Your task to perform on an android device: change notifications settings Image 0: 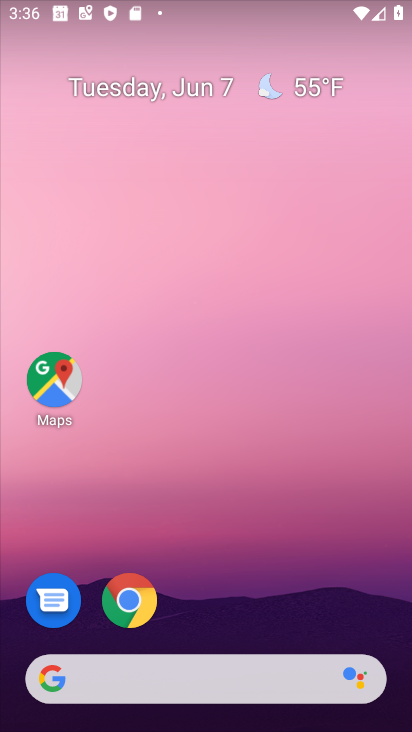
Step 0: drag from (186, 627) to (245, 1)
Your task to perform on an android device: change notifications settings Image 1: 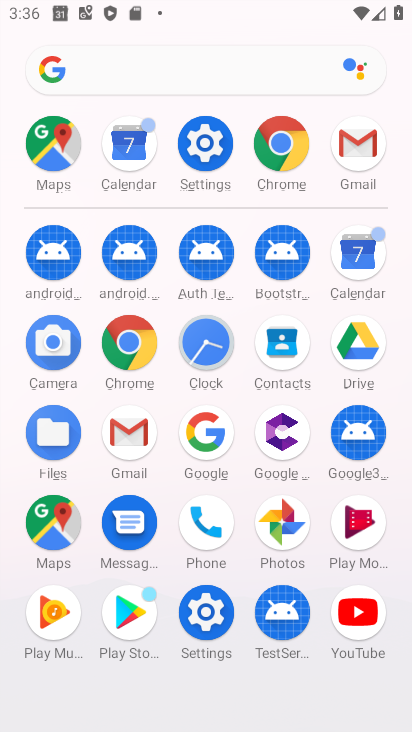
Step 1: click (211, 135)
Your task to perform on an android device: change notifications settings Image 2: 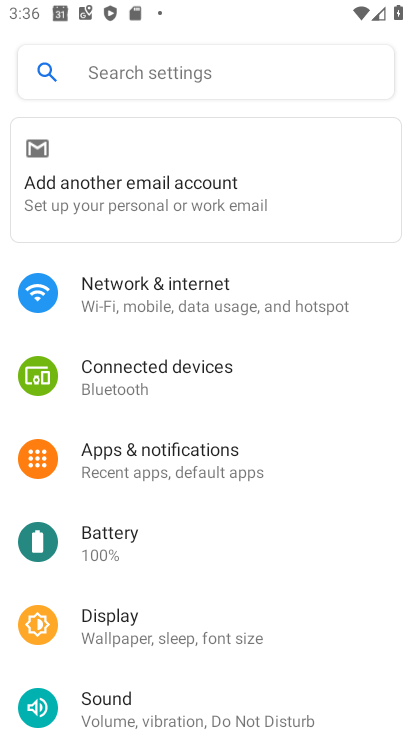
Step 2: click (161, 456)
Your task to perform on an android device: change notifications settings Image 3: 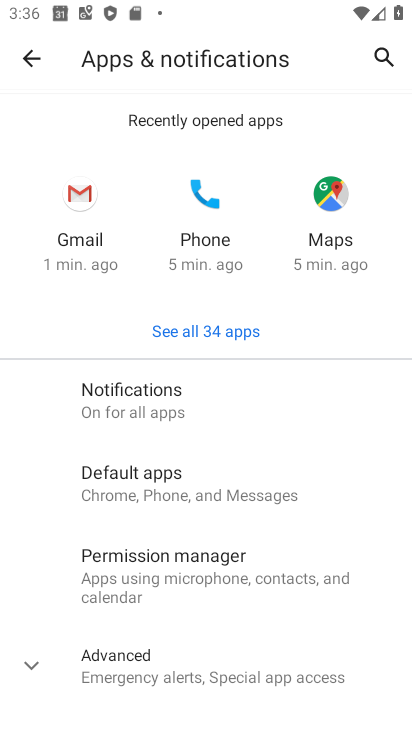
Step 3: click (146, 416)
Your task to perform on an android device: change notifications settings Image 4: 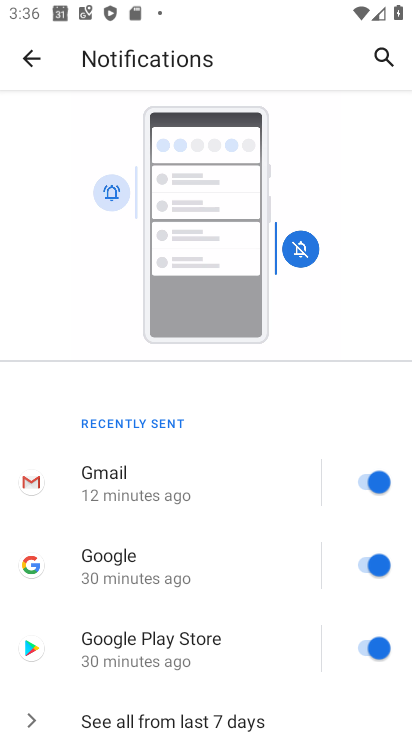
Step 4: drag from (162, 685) to (175, 245)
Your task to perform on an android device: change notifications settings Image 5: 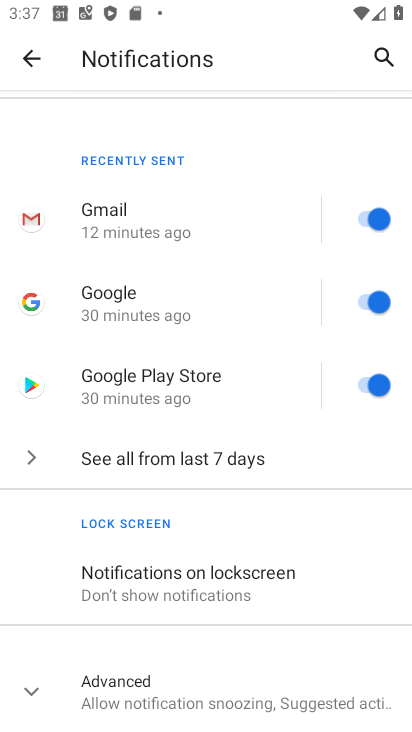
Step 5: click (185, 586)
Your task to perform on an android device: change notifications settings Image 6: 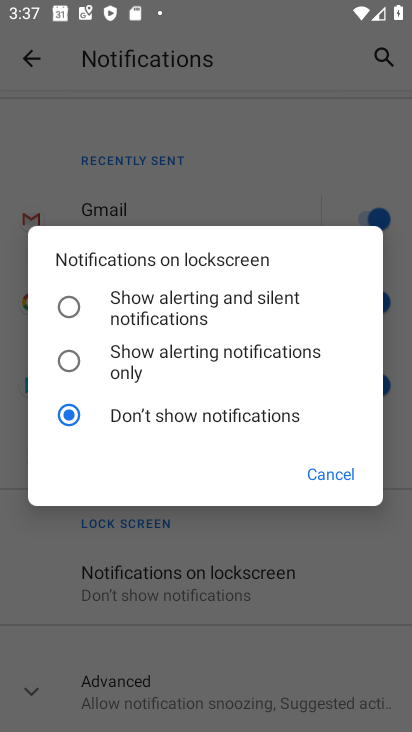
Step 6: click (80, 318)
Your task to perform on an android device: change notifications settings Image 7: 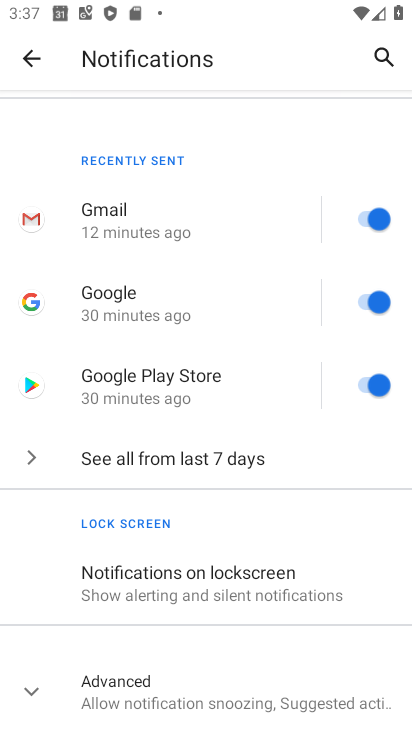
Step 7: task complete